Your task to perform on an android device: Open Youtube and go to the subscriptions tab Image 0: 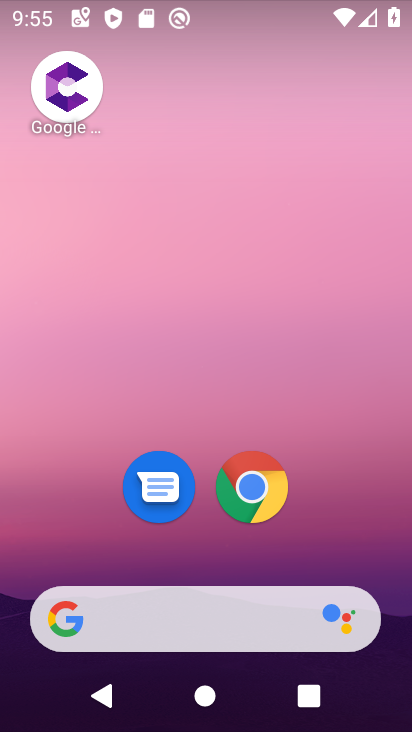
Step 0: drag from (374, 550) to (340, 192)
Your task to perform on an android device: Open Youtube and go to the subscriptions tab Image 1: 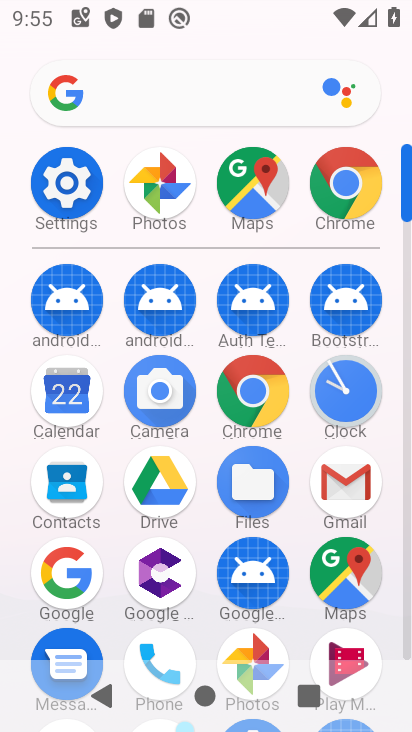
Step 1: drag from (402, 569) to (387, 377)
Your task to perform on an android device: Open Youtube and go to the subscriptions tab Image 2: 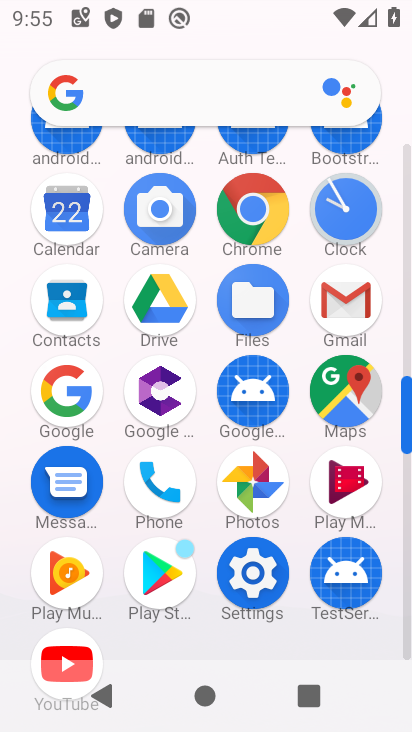
Step 2: click (71, 658)
Your task to perform on an android device: Open Youtube and go to the subscriptions tab Image 3: 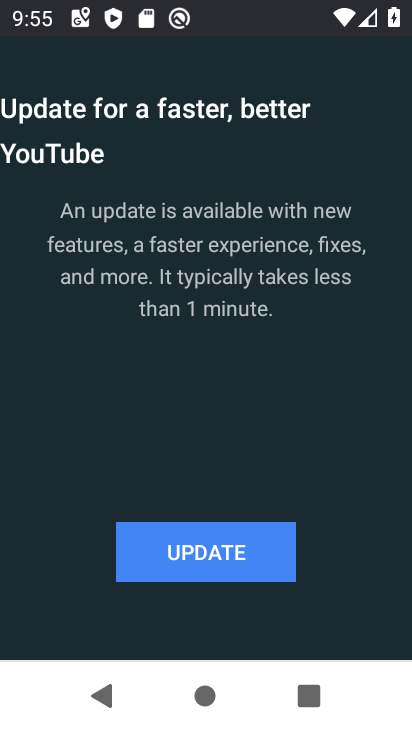
Step 3: click (272, 543)
Your task to perform on an android device: Open Youtube and go to the subscriptions tab Image 4: 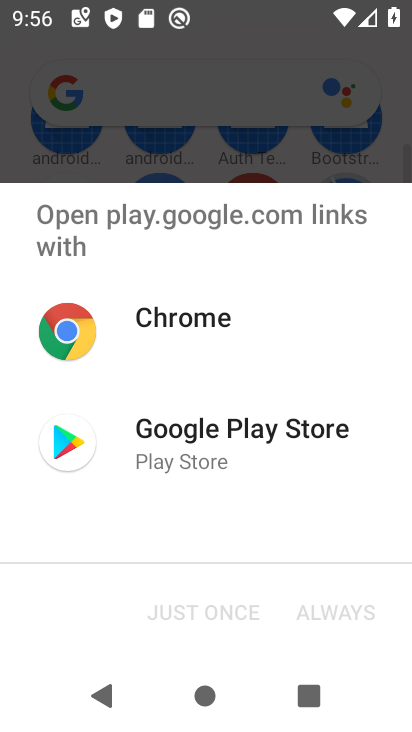
Step 4: click (192, 457)
Your task to perform on an android device: Open Youtube and go to the subscriptions tab Image 5: 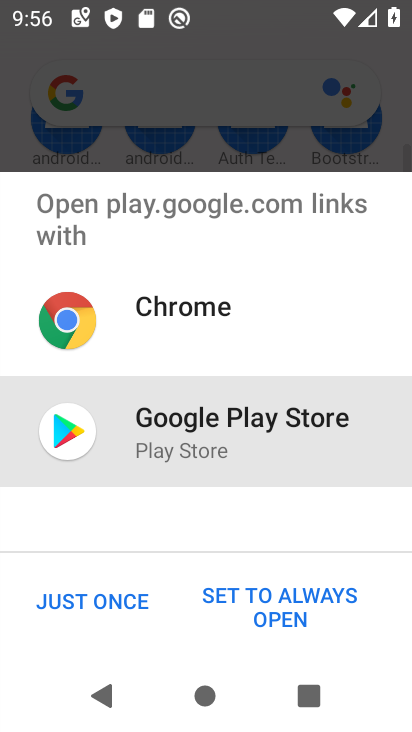
Step 5: click (128, 602)
Your task to perform on an android device: Open Youtube and go to the subscriptions tab Image 6: 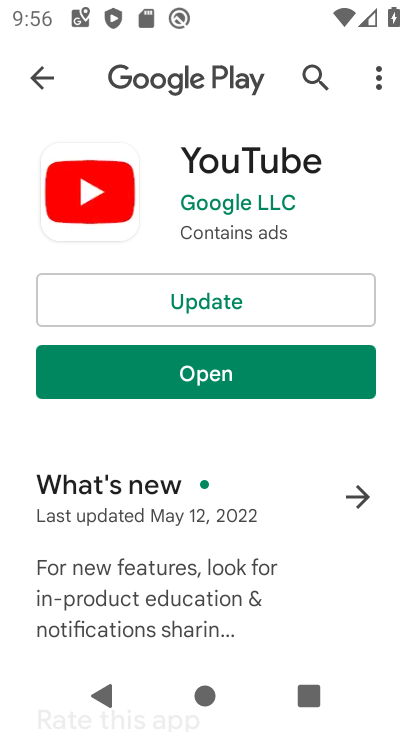
Step 6: click (231, 299)
Your task to perform on an android device: Open Youtube and go to the subscriptions tab Image 7: 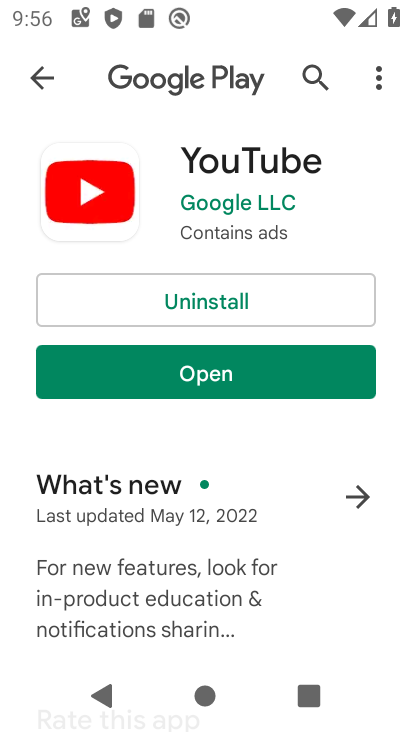
Step 7: click (237, 385)
Your task to perform on an android device: Open Youtube and go to the subscriptions tab Image 8: 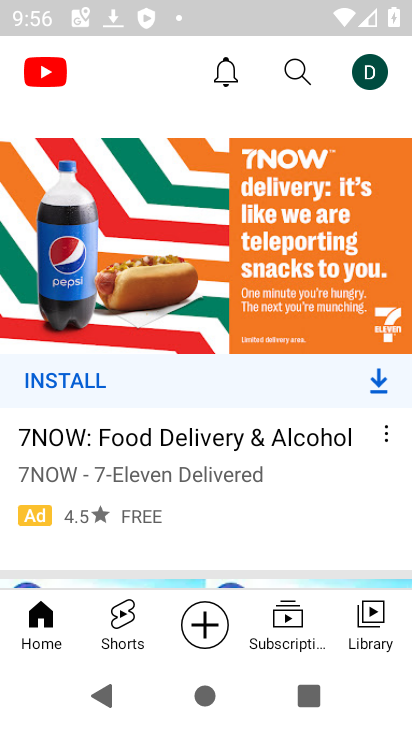
Step 8: click (287, 629)
Your task to perform on an android device: Open Youtube and go to the subscriptions tab Image 9: 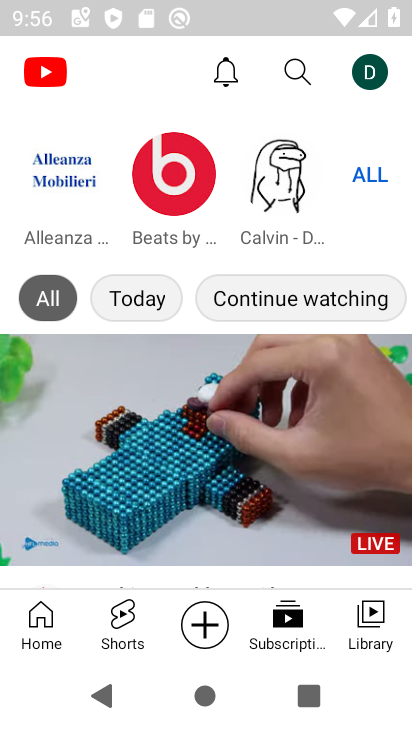
Step 9: task complete